Your task to perform on an android device: turn on priority inbox in the gmail app Image 0: 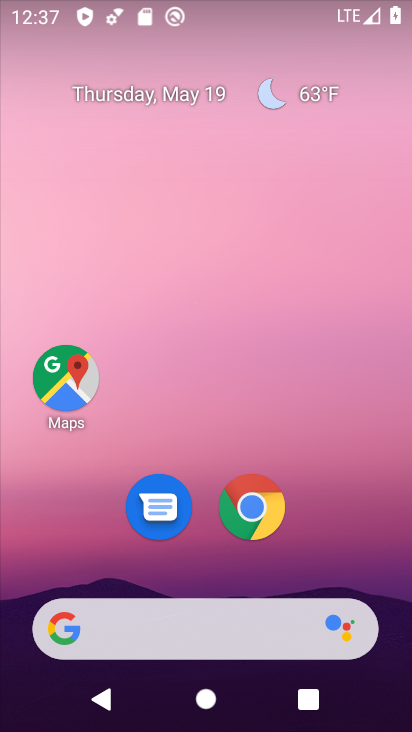
Step 0: drag from (201, 601) to (223, 425)
Your task to perform on an android device: turn on priority inbox in the gmail app Image 1: 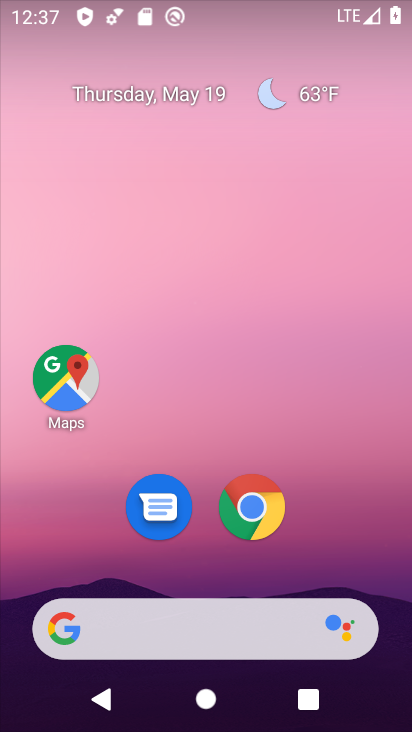
Step 1: drag from (183, 613) to (228, 287)
Your task to perform on an android device: turn on priority inbox in the gmail app Image 2: 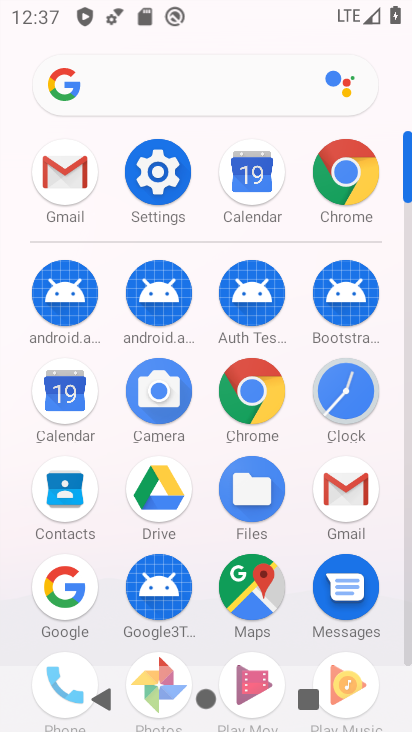
Step 2: click (67, 168)
Your task to perform on an android device: turn on priority inbox in the gmail app Image 3: 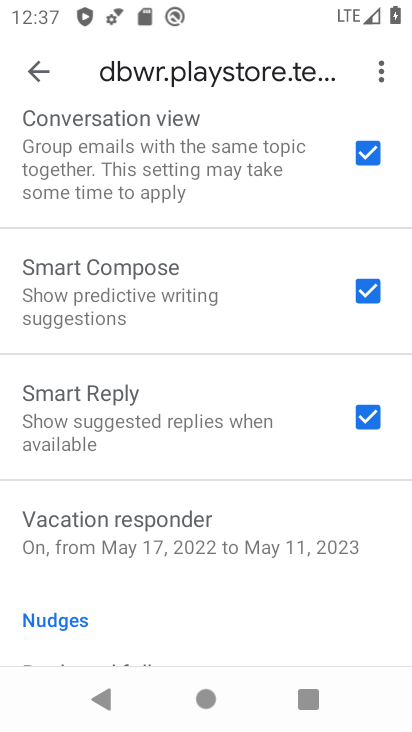
Step 3: drag from (152, 79) to (247, 496)
Your task to perform on an android device: turn on priority inbox in the gmail app Image 4: 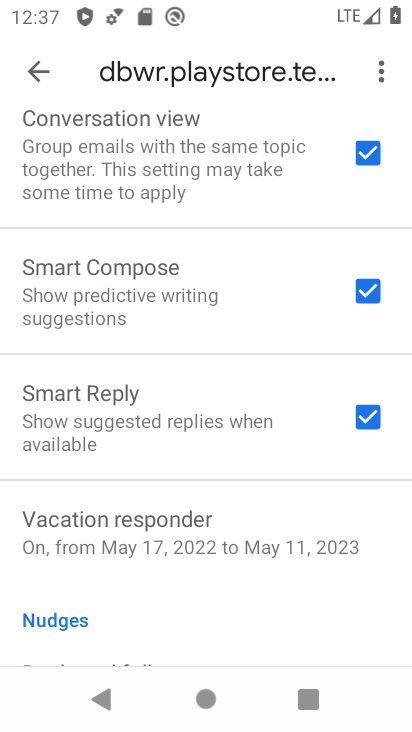
Step 4: drag from (133, 98) to (200, 478)
Your task to perform on an android device: turn on priority inbox in the gmail app Image 5: 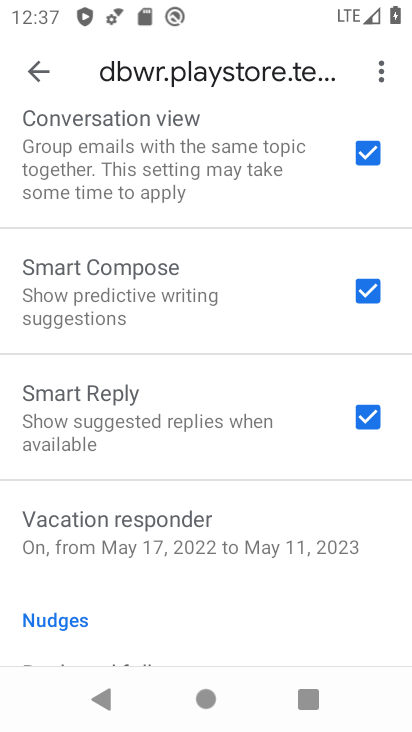
Step 5: drag from (94, 116) to (160, 476)
Your task to perform on an android device: turn on priority inbox in the gmail app Image 6: 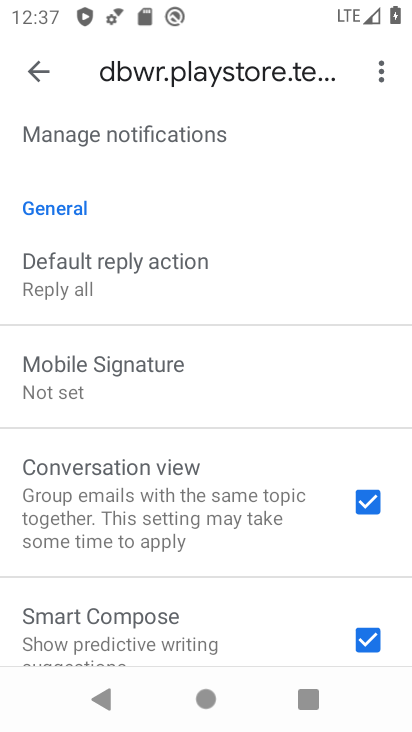
Step 6: drag from (82, 180) to (139, 464)
Your task to perform on an android device: turn on priority inbox in the gmail app Image 7: 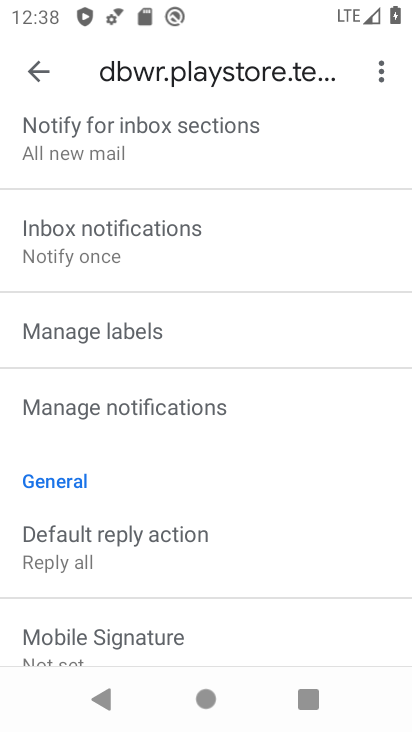
Step 7: drag from (125, 152) to (136, 611)
Your task to perform on an android device: turn on priority inbox in the gmail app Image 8: 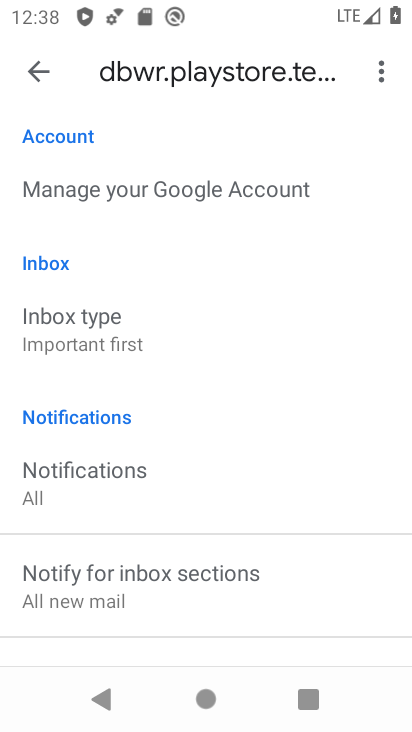
Step 8: click (74, 322)
Your task to perform on an android device: turn on priority inbox in the gmail app Image 9: 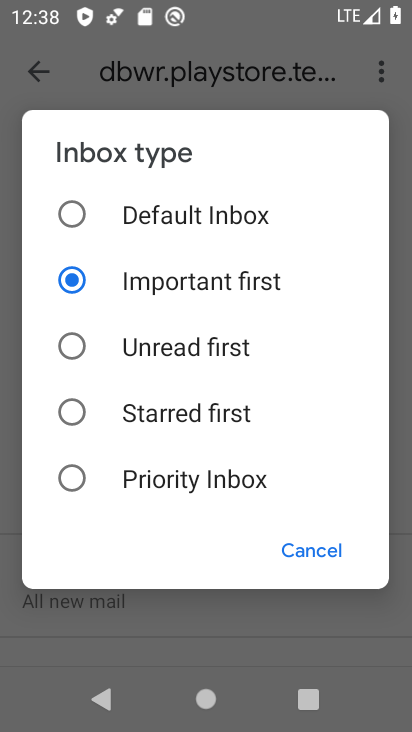
Step 9: click (77, 476)
Your task to perform on an android device: turn on priority inbox in the gmail app Image 10: 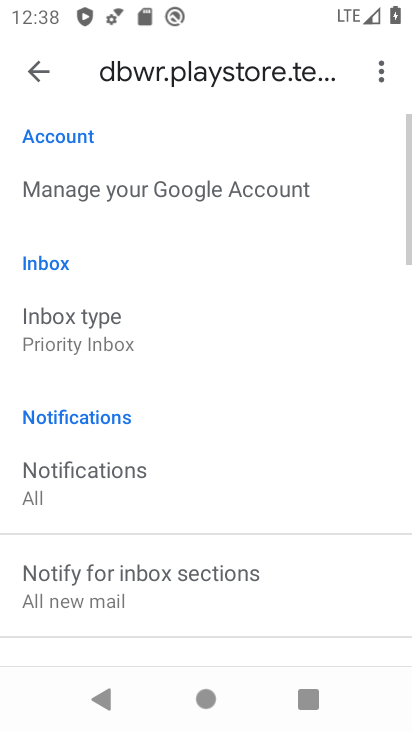
Step 10: task complete